Your task to perform on an android device: Do I have any events this weekend? Image 0: 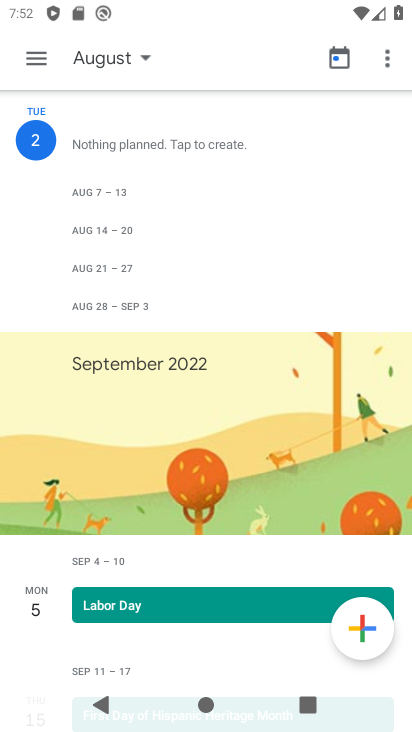
Step 0: click (36, 61)
Your task to perform on an android device: Do I have any events this weekend? Image 1: 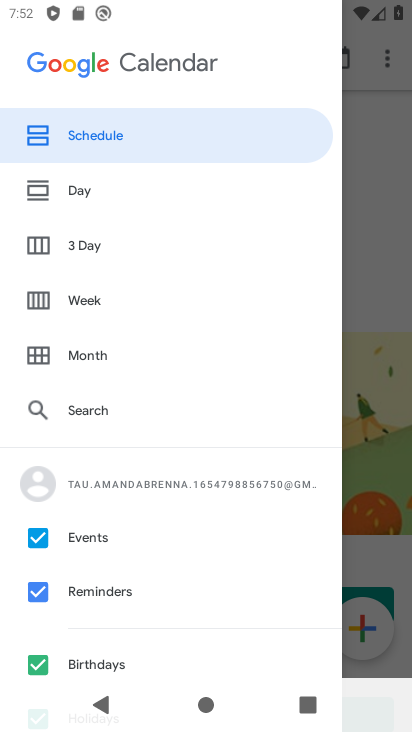
Step 1: click (92, 580)
Your task to perform on an android device: Do I have any events this weekend? Image 2: 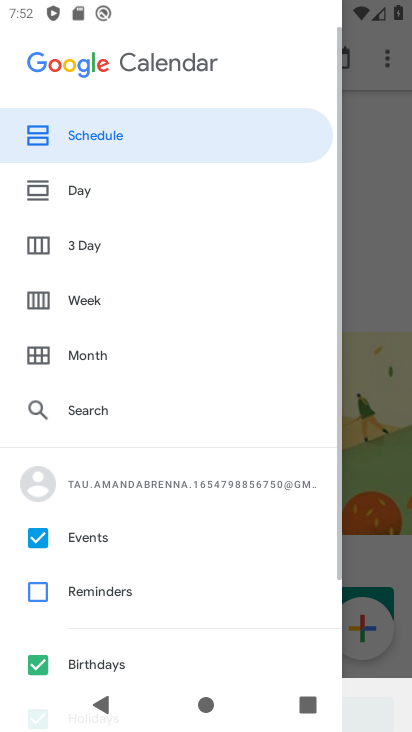
Step 2: drag from (126, 638) to (128, 521)
Your task to perform on an android device: Do I have any events this weekend? Image 3: 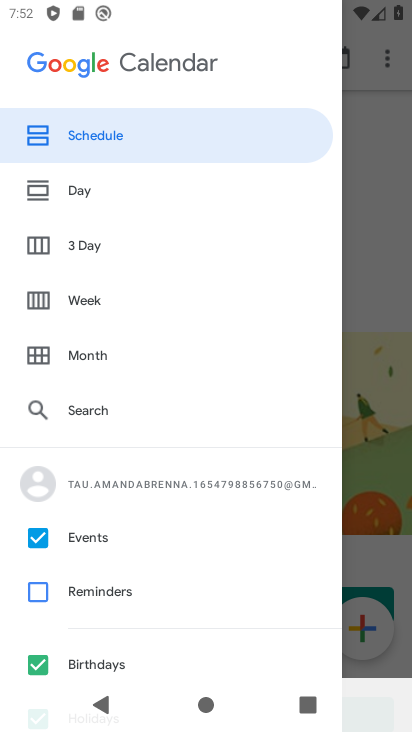
Step 3: drag from (74, 636) to (101, 277)
Your task to perform on an android device: Do I have any events this weekend? Image 4: 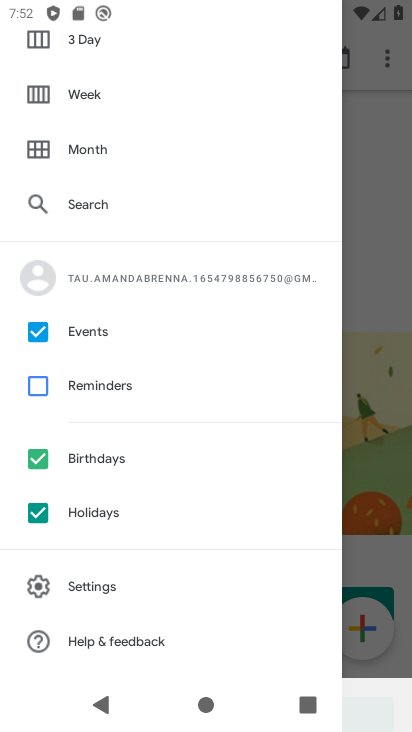
Step 4: click (39, 453)
Your task to perform on an android device: Do I have any events this weekend? Image 5: 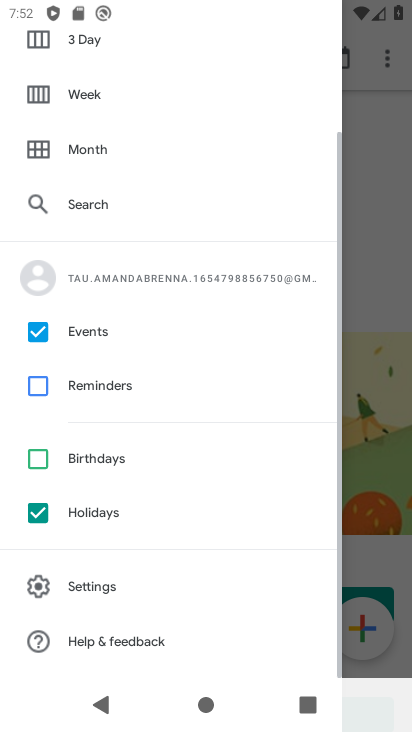
Step 5: click (46, 522)
Your task to perform on an android device: Do I have any events this weekend? Image 6: 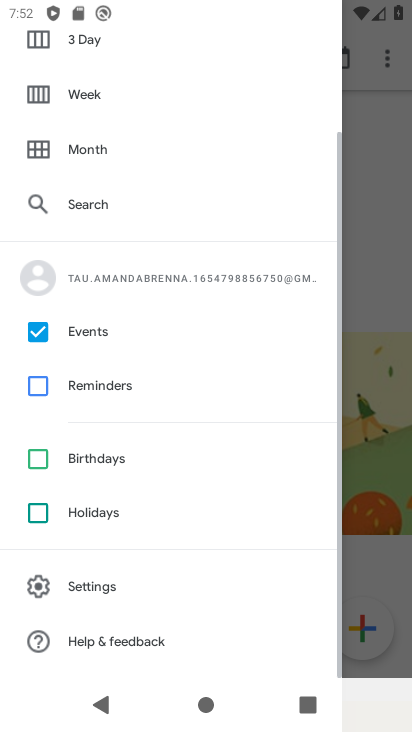
Step 6: drag from (288, 280) to (279, 629)
Your task to perform on an android device: Do I have any events this weekend? Image 7: 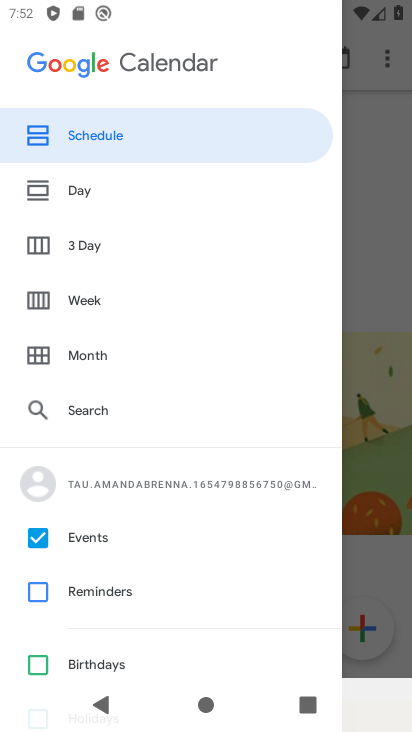
Step 7: click (89, 300)
Your task to perform on an android device: Do I have any events this weekend? Image 8: 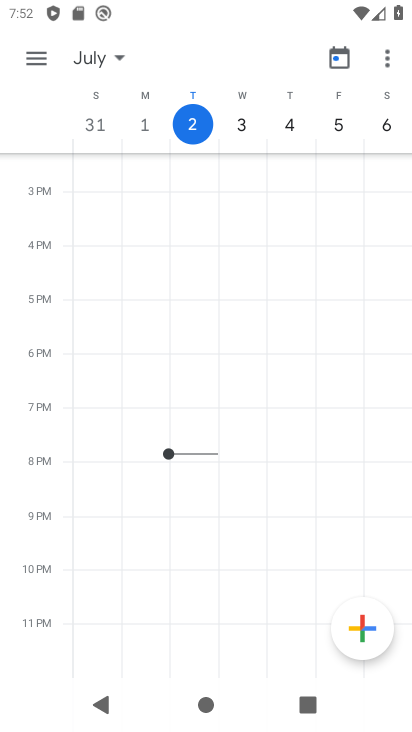
Step 8: task complete